Your task to perform on an android device: open wifi settings Image 0: 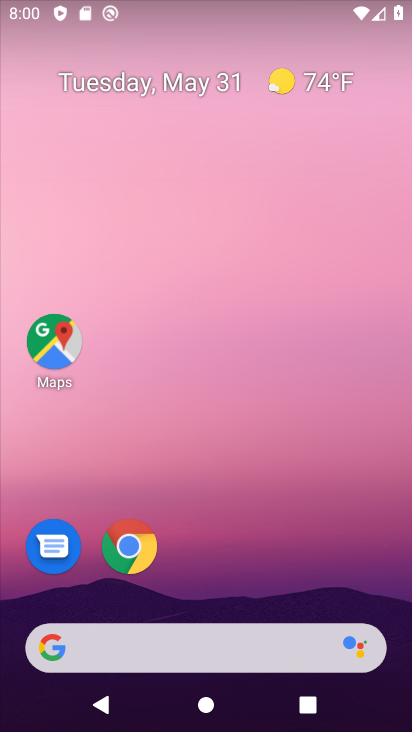
Step 0: drag from (258, 567) to (201, 126)
Your task to perform on an android device: open wifi settings Image 1: 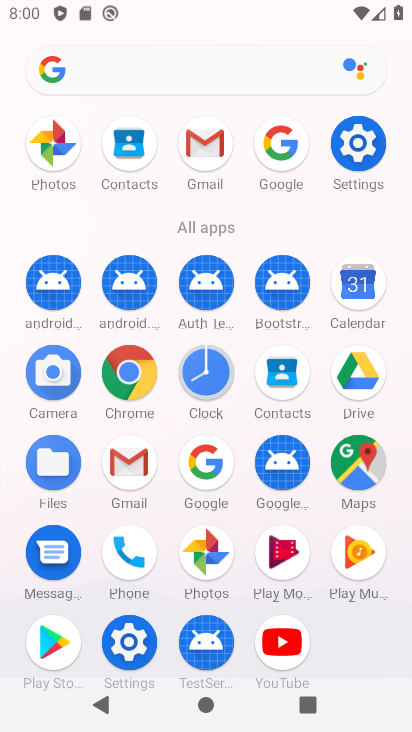
Step 1: click (362, 146)
Your task to perform on an android device: open wifi settings Image 2: 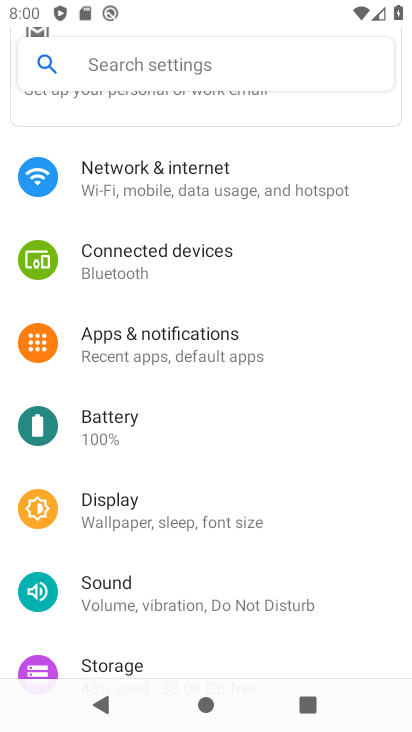
Step 2: click (158, 154)
Your task to perform on an android device: open wifi settings Image 3: 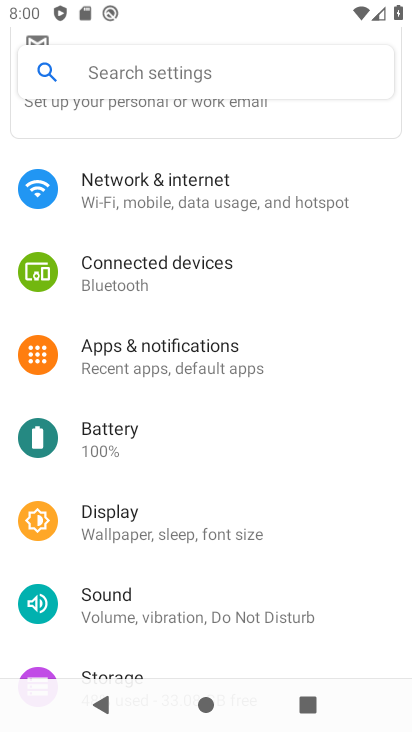
Step 3: click (168, 184)
Your task to perform on an android device: open wifi settings Image 4: 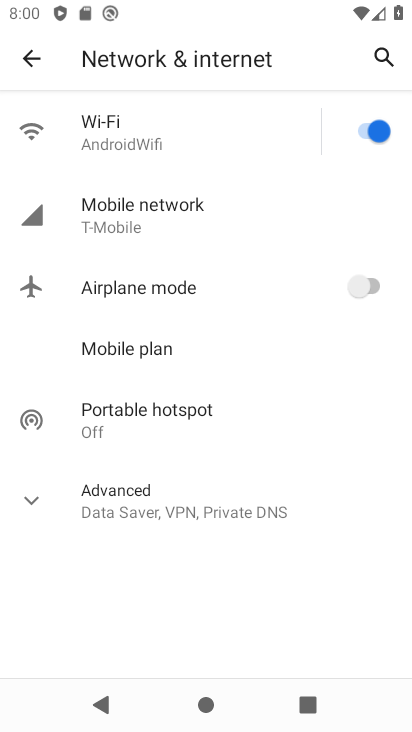
Step 4: click (144, 139)
Your task to perform on an android device: open wifi settings Image 5: 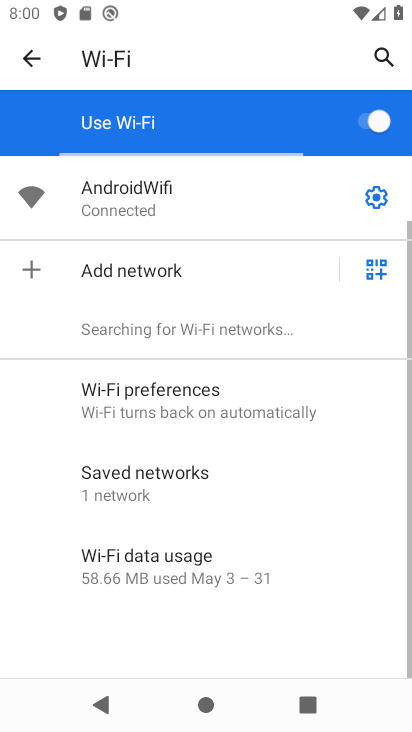
Step 5: click (142, 187)
Your task to perform on an android device: open wifi settings Image 6: 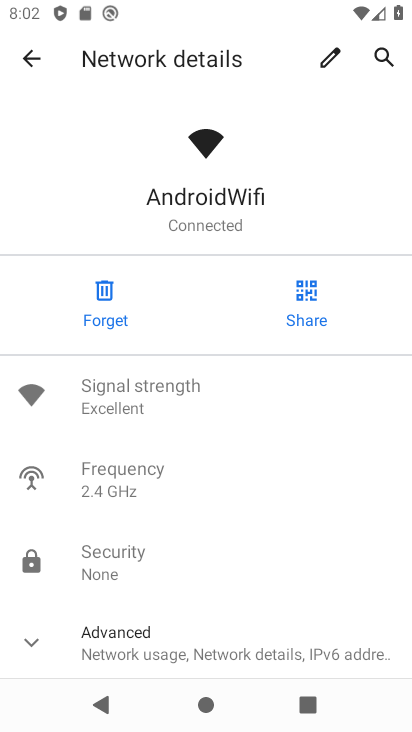
Step 6: task complete